Your task to perform on an android device: Search for corsair k70 on walmart.com, select the first entry, and add it to the cart. Image 0: 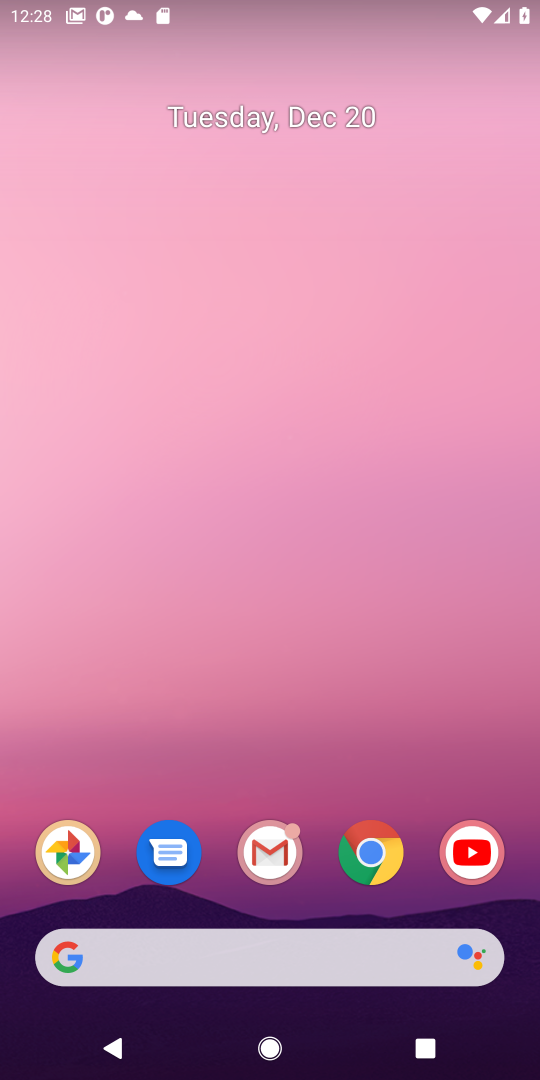
Step 0: click (368, 853)
Your task to perform on an android device: Search for corsair k70 on walmart.com, select the first entry, and add it to the cart. Image 1: 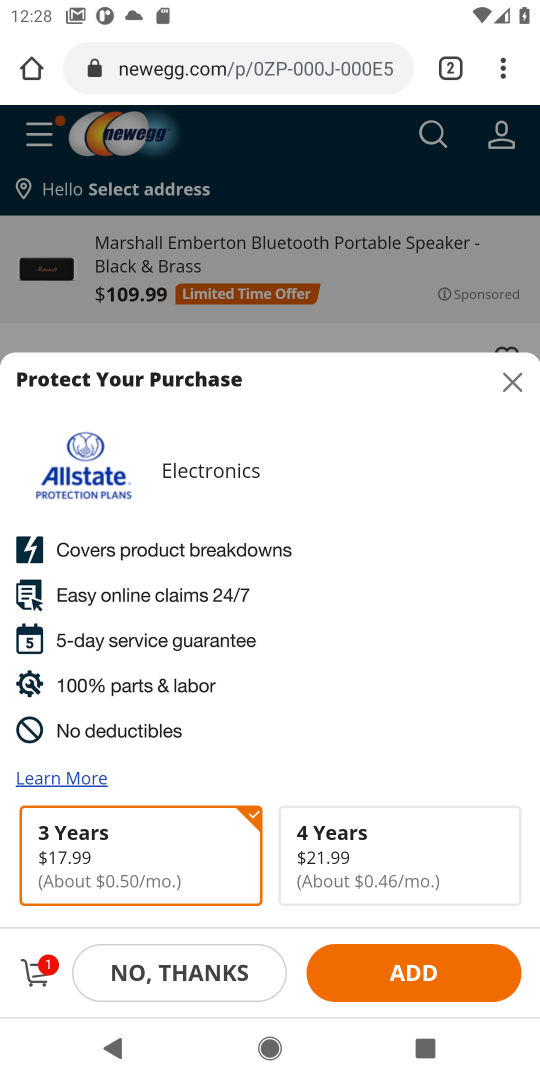
Step 1: click (224, 78)
Your task to perform on an android device: Search for corsair k70 on walmart.com, select the first entry, and add it to the cart. Image 2: 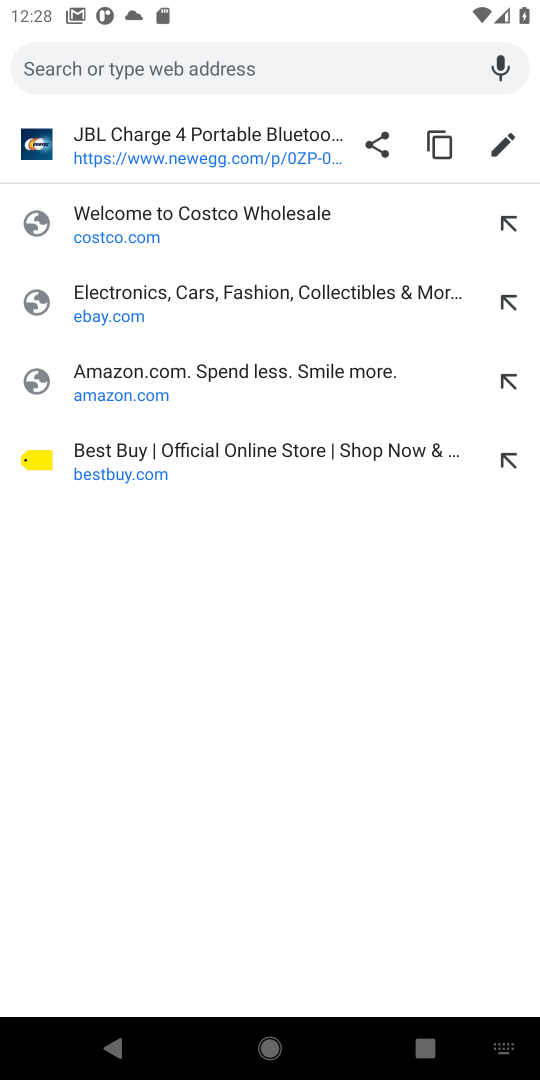
Step 2: type "walmart.com"
Your task to perform on an android device: Search for corsair k70 on walmart.com, select the first entry, and add it to the cart. Image 3: 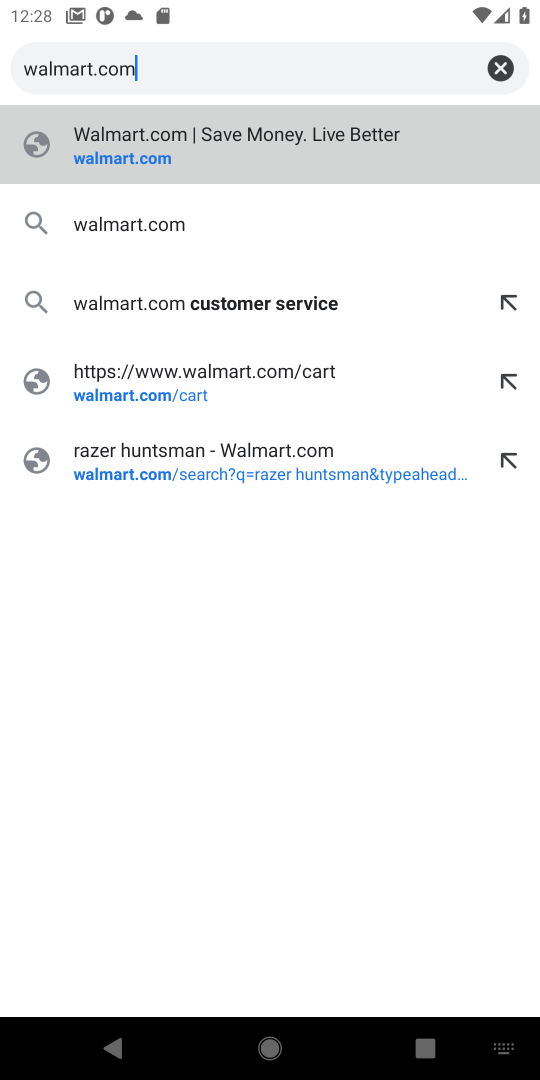
Step 3: click (102, 164)
Your task to perform on an android device: Search for corsair k70 on walmart.com, select the first entry, and add it to the cart. Image 4: 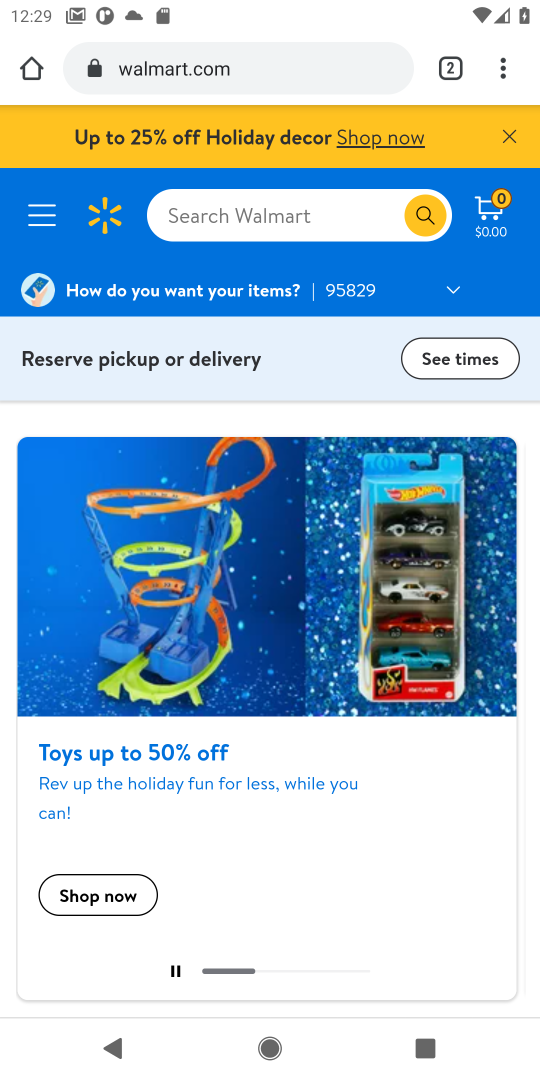
Step 4: click (194, 203)
Your task to perform on an android device: Search for corsair k70 on walmart.com, select the first entry, and add it to the cart. Image 5: 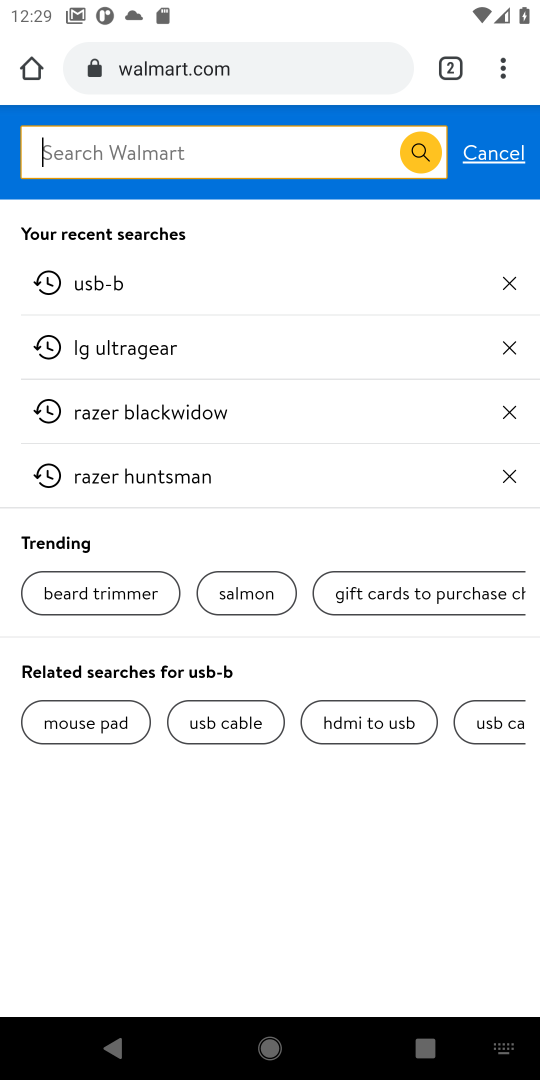
Step 5: type "corsair k70 "
Your task to perform on an android device: Search for corsair k70 on walmart.com, select the first entry, and add it to the cart. Image 6: 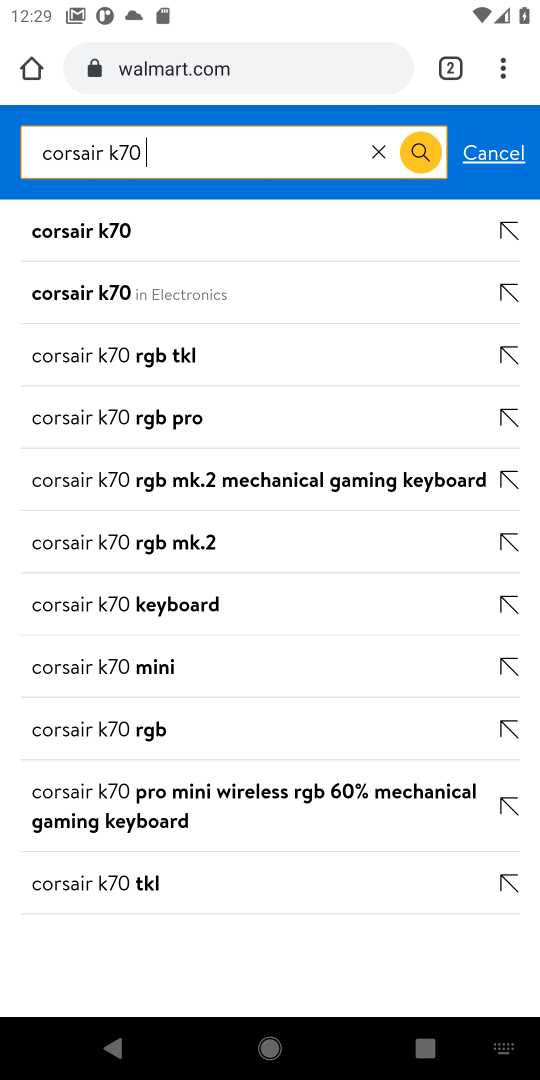
Step 6: click (60, 224)
Your task to perform on an android device: Search for corsair k70 on walmart.com, select the first entry, and add it to the cart. Image 7: 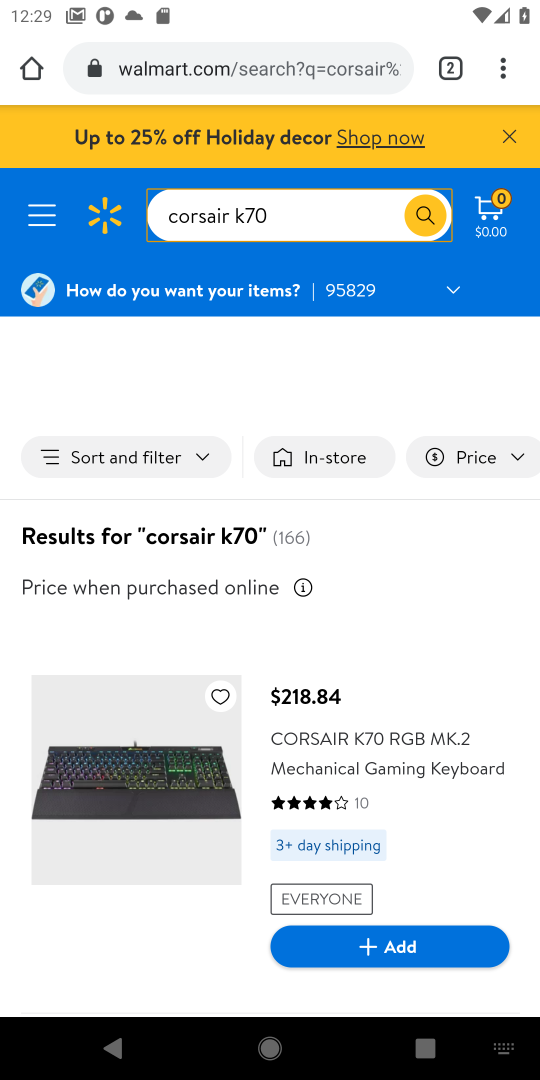
Step 7: drag from (210, 703) to (232, 450)
Your task to perform on an android device: Search for corsair k70 on walmart.com, select the first entry, and add it to the cart. Image 8: 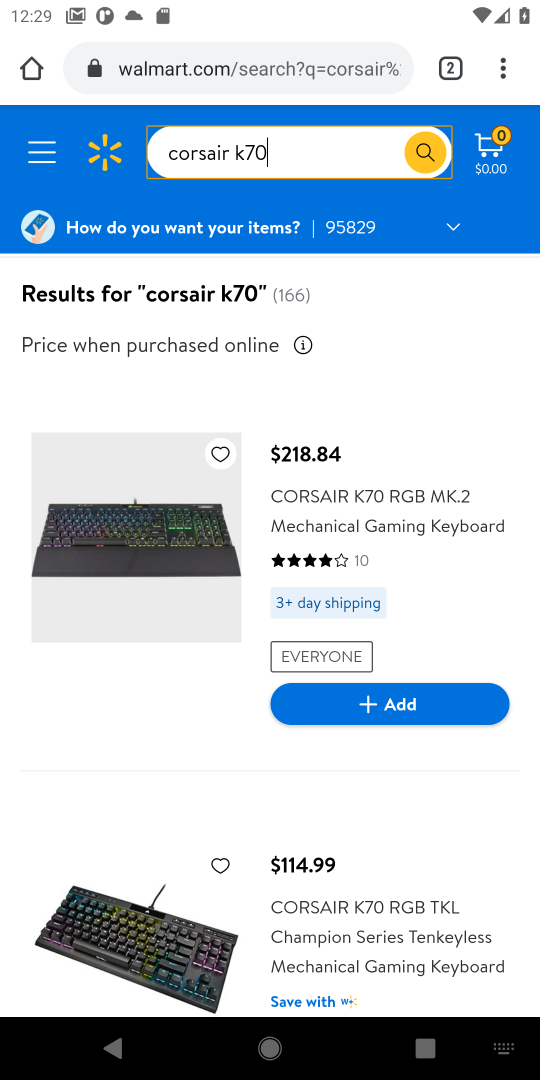
Step 8: click (390, 707)
Your task to perform on an android device: Search for corsair k70 on walmart.com, select the first entry, and add it to the cart. Image 9: 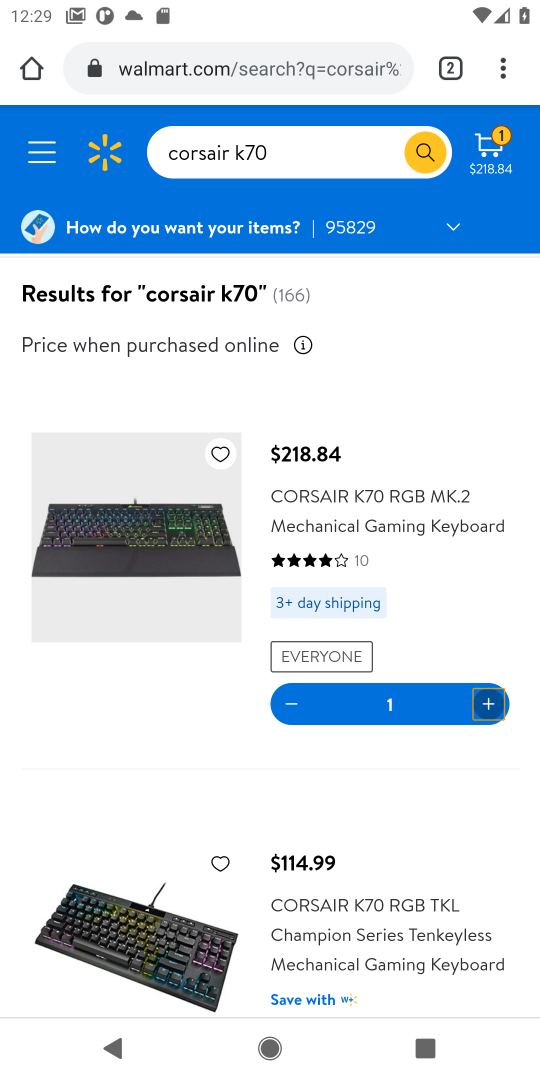
Step 9: task complete